Your task to perform on an android device: Open notification settings Image 0: 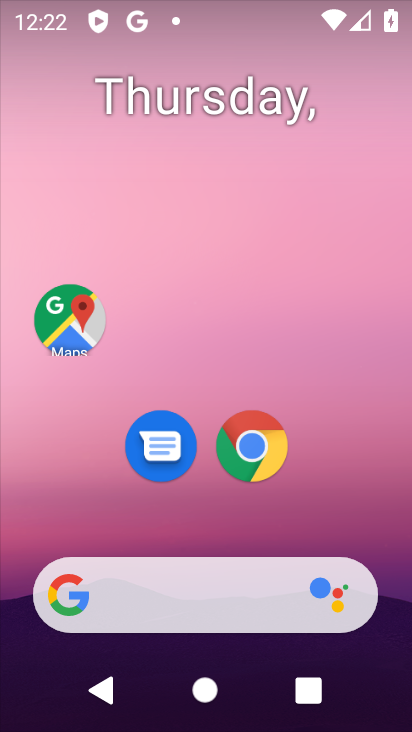
Step 0: drag from (338, 488) to (347, 118)
Your task to perform on an android device: Open notification settings Image 1: 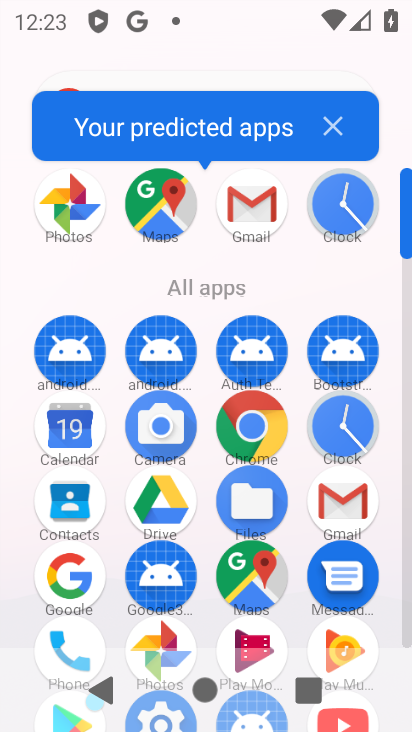
Step 1: click (405, 640)
Your task to perform on an android device: Open notification settings Image 2: 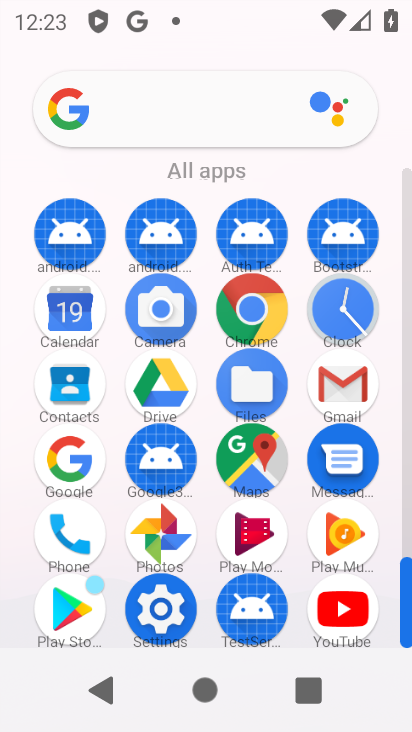
Step 2: click (405, 640)
Your task to perform on an android device: Open notification settings Image 3: 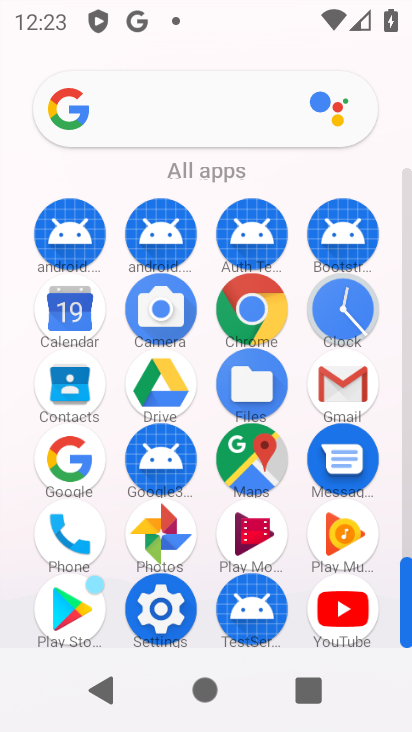
Step 3: click (153, 619)
Your task to perform on an android device: Open notification settings Image 4: 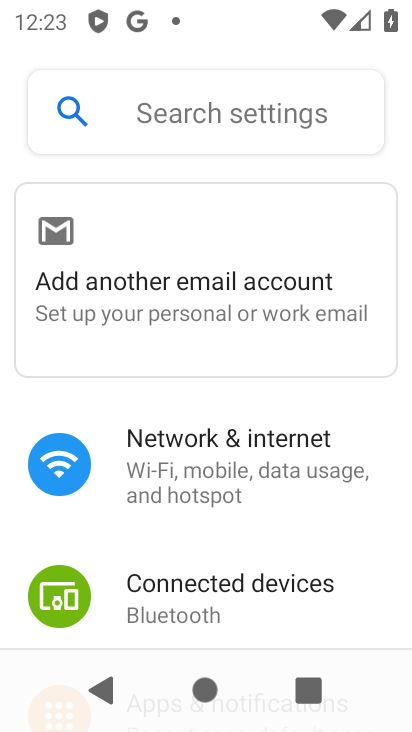
Step 4: drag from (153, 619) to (177, 167)
Your task to perform on an android device: Open notification settings Image 5: 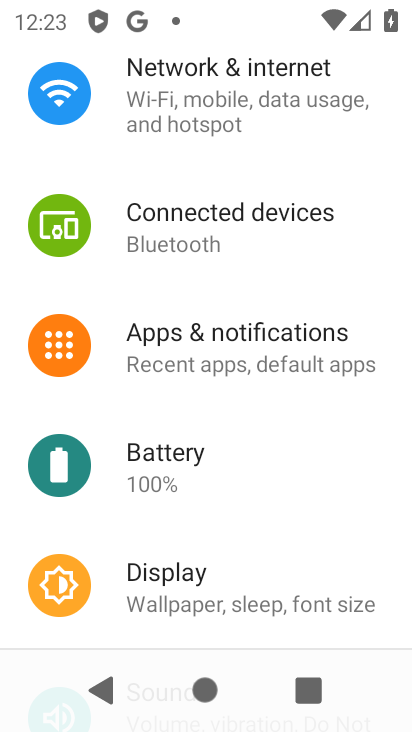
Step 5: click (232, 342)
Your task to perform on an android device: Open notification settings Image 6: 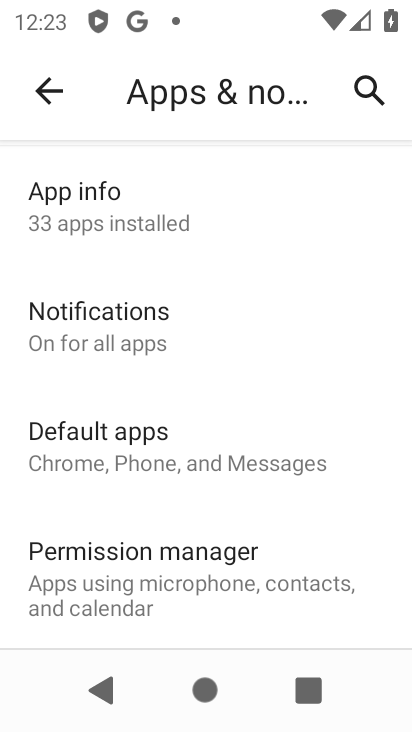
Step 6: click (153, 324)
Your task to perform on an android device: Open notification settings Image 7: 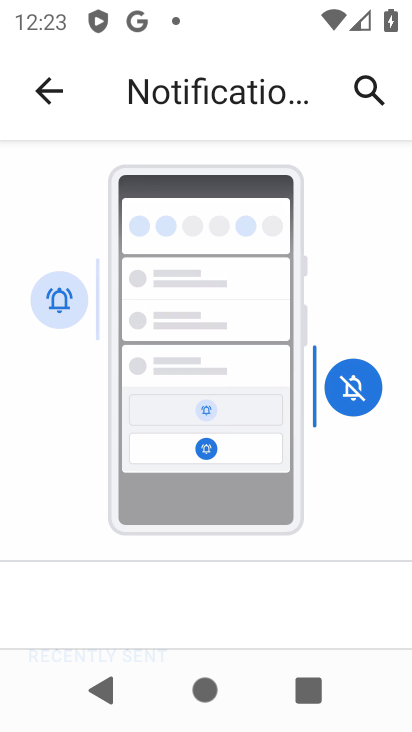
Step 7: drag from (166, 553) to (194, 159)
Your task to perform on an android device: Open notification settings Image 8: 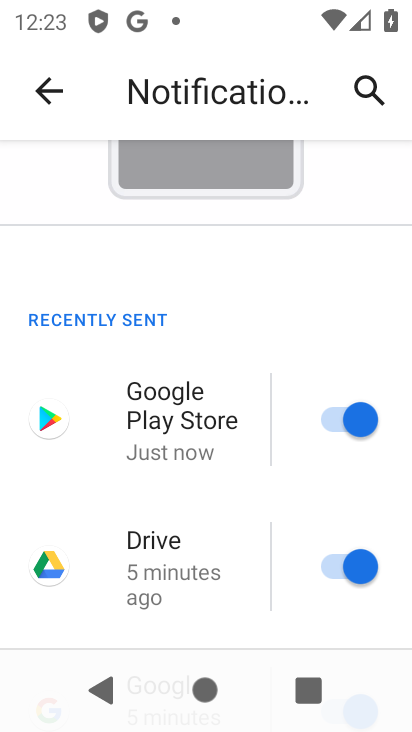
Step 8: drag from (256, 519) to (190, 194)
Your task to perform on an android device: Open notification settings Image 9: 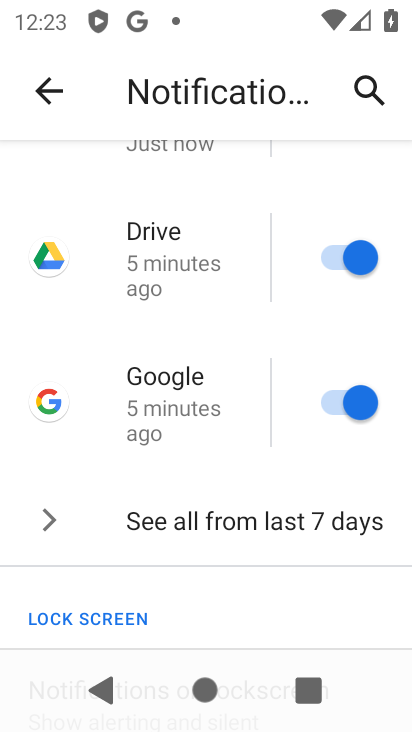
Step 9: drag from (188, 613) to (189, 316)
Your task to perform on an android device: Open notification settings Image 10: 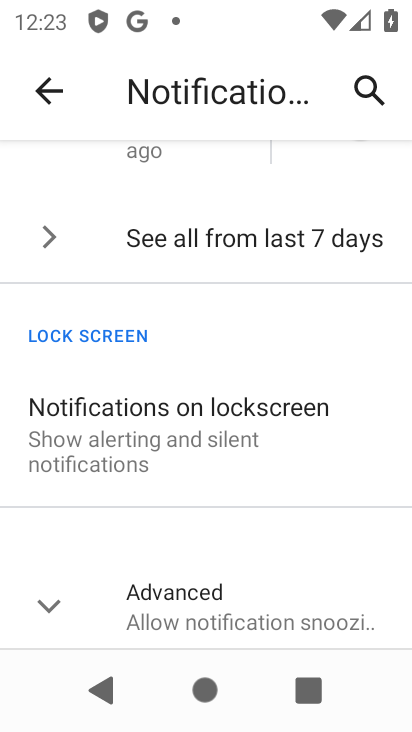
Step 10: click (226, 606)
Your task to perform on an android device: Open notification settings Image 11: 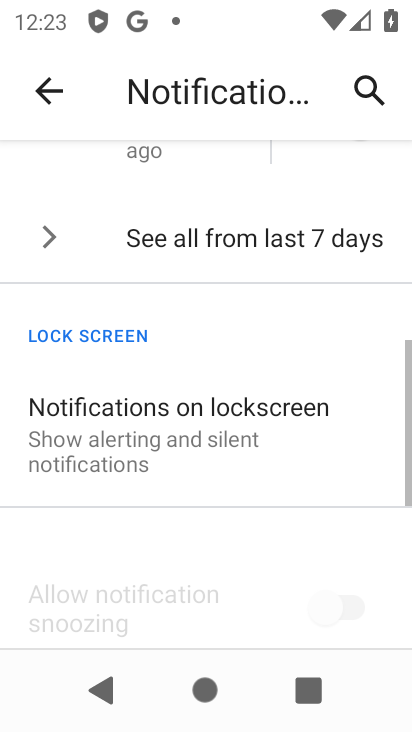
Step 11: drag from (226, 606) to (210, 349)
Your task to perform on an android device: Open notification settings Image 12: 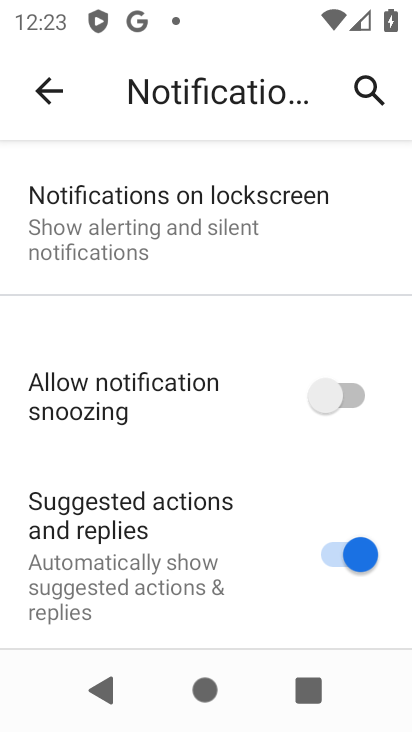
Step 12: click (323, 394)
Your task to perform on an android device: Open notification settings Image 13: 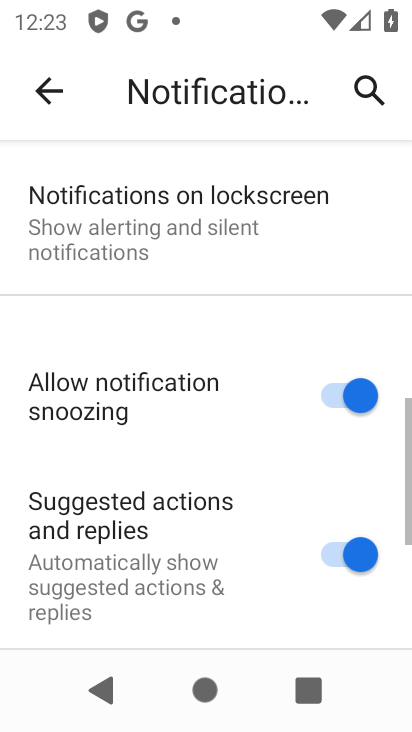
Step 13: click (300, 589)
Your task to perform on an android device: Open notification settings Image 14: 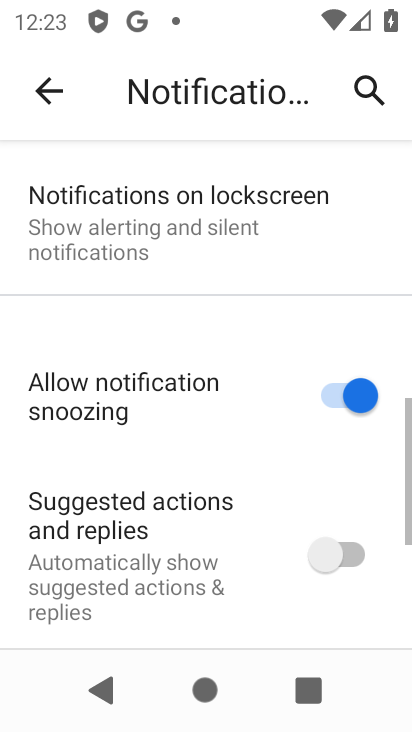
Step 14: drag from (300, 589) to (236, 405)
Your task to perform on an android device: Open notification settings Image 15: 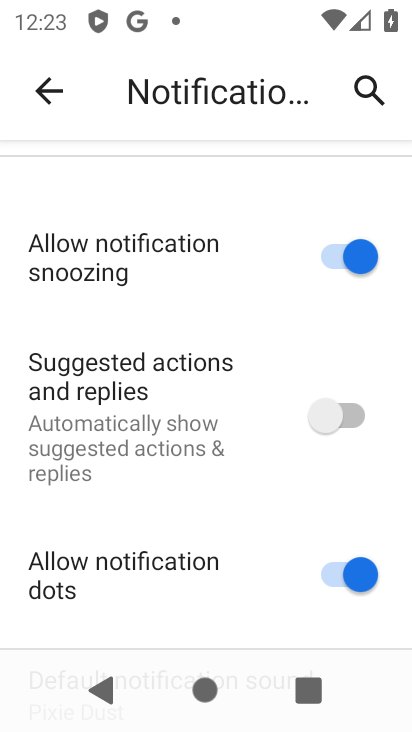
Step 15: click (261, 597)
Your task to perform on an android device: Open notification settings Image 16: 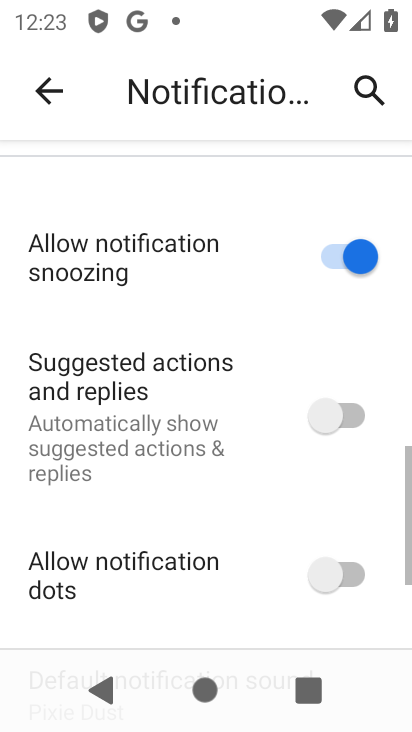
Step 16: task complete